Your task to perform on an android device: Open Amazon Image 0: 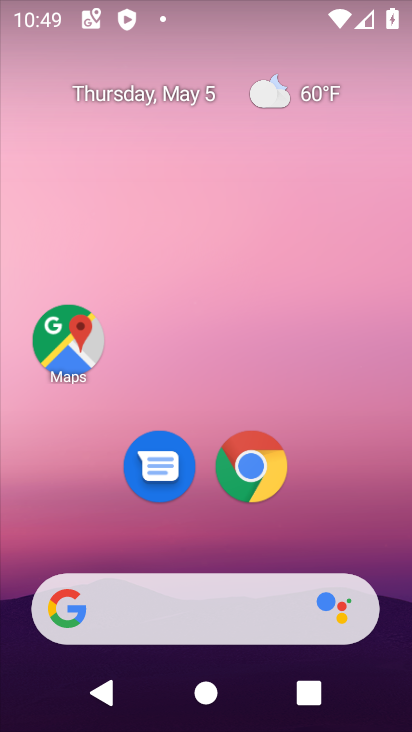
Step 0: drag from (171, 511) to (228, 124)
Your task to perform on an android device: Open Amazon Image 1: 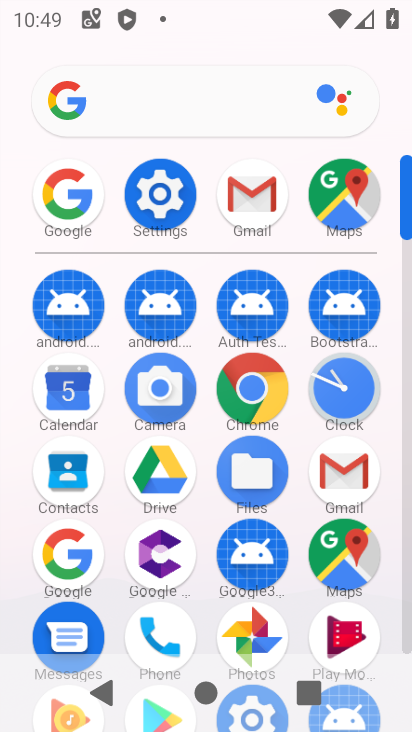
Step 1: click (252, 397)
Your task to perform on an android device: Open Amazon Image 2: 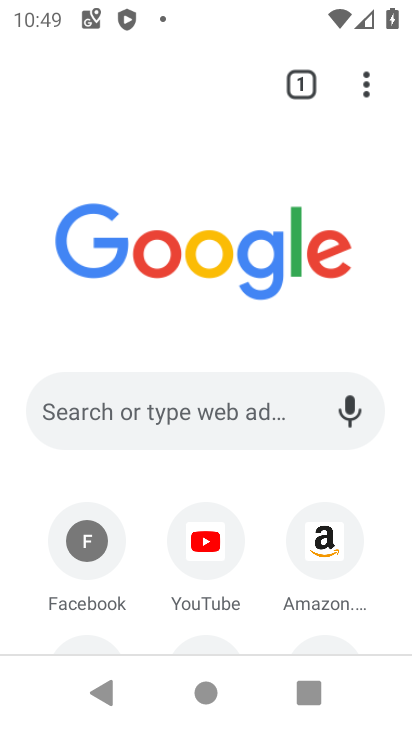
Step 2: click (322, 552)
Your task to perform on an android device: Open Amazon Image 3: 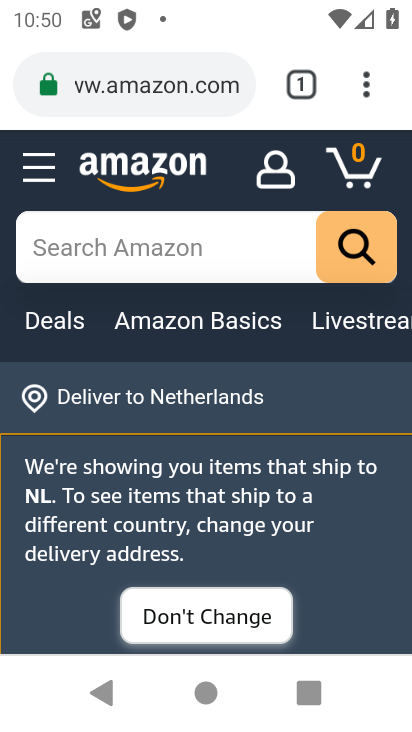
Step 3: task complete